Your task to perform on an android device: Set the phone to "Do not disturb". Image 0: 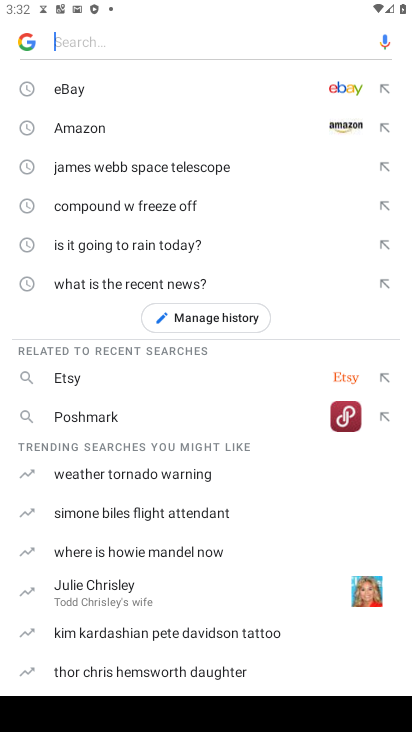
Step 0: press home button
Your task to perform on an android device: Set the phone to "Do not disturb". Image 1: 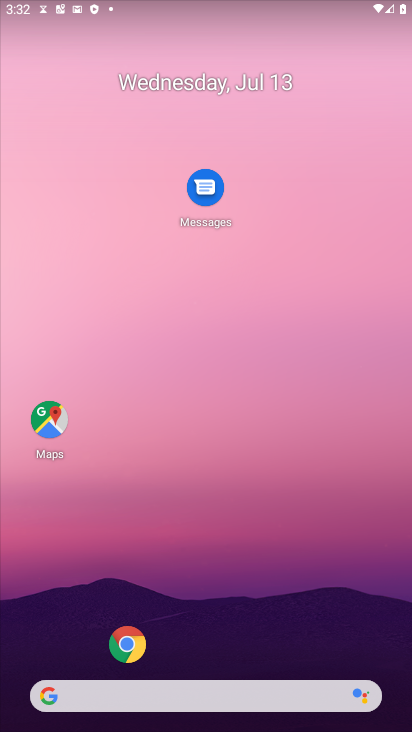
Step 1: drag from (41, 658) to (153, 167)
Your task to perform on an android device: Set the phone to "Do not disturb". Image 2: 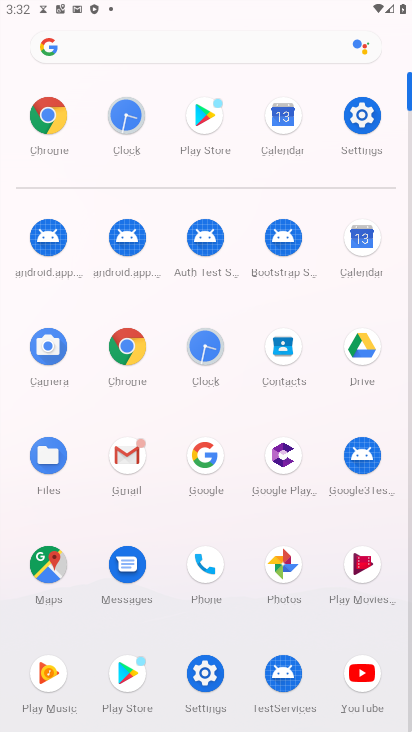
Step 2: click (202, 675)
Your task to perform on an android device: Set the phone to "Do not disturb". Image 3: 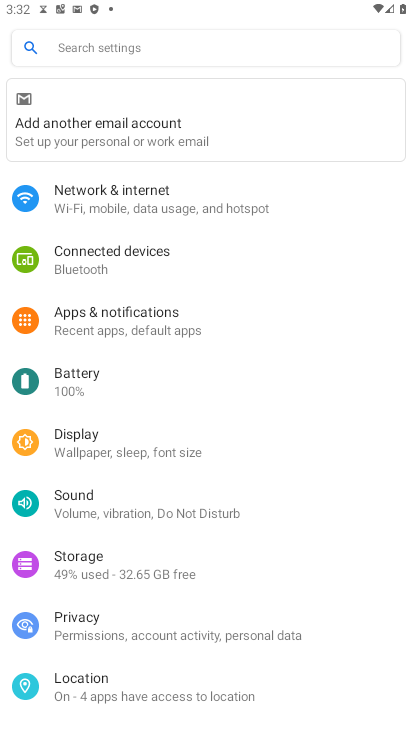
Step 3: click (136, 509)
Your task to perform on an android device: Set the phone to "Do not disturb". Image 4: 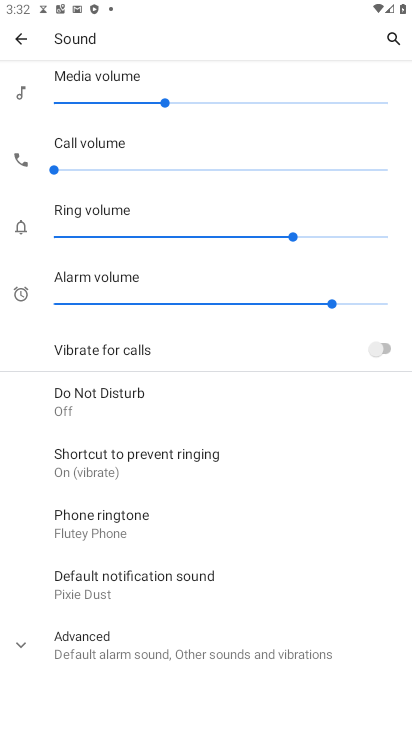
Step 4: click (115, 410)
Your task to perform on an android device: Set the phone to "Do not disturb". Image 5: 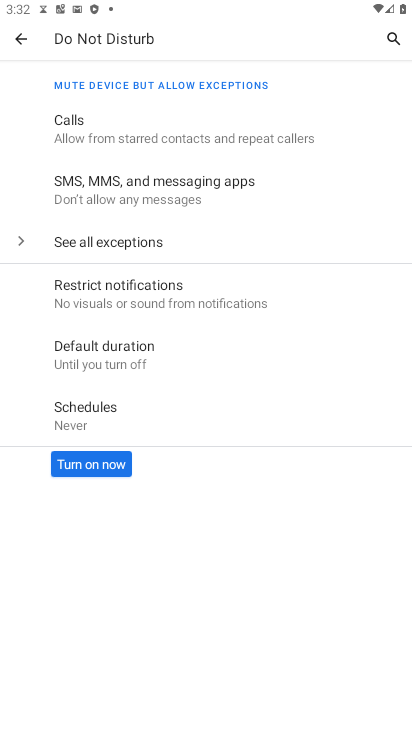
Step 5: click (100, 459)
Your task to perform on an android device: Set the phone to "Do not disturb". Image 6: 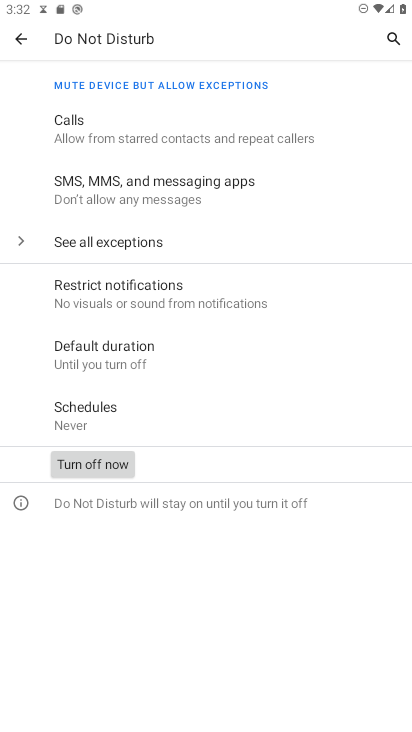
Step 6: task complete